Your task to perform on an android device: Open sound settings Image 0: 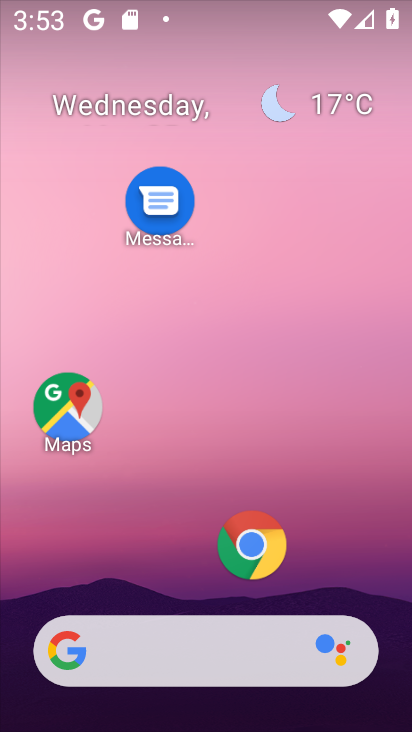
Step 0: drag from (334, 561) to (310, 53)
Your task to perform on an android device: Open sound settings Image 1: 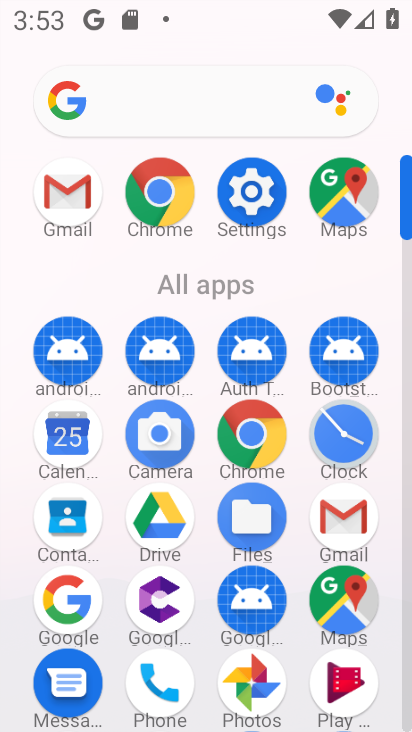
Step 1: click (255, 194)
Your task to perform on an android device: Open sound settings Image 2: 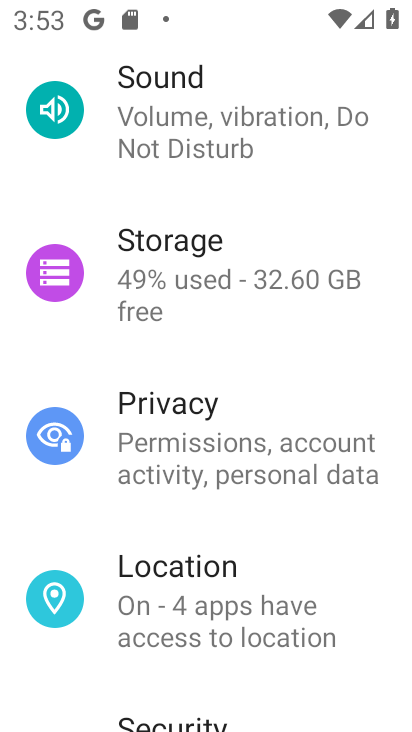
Step 2: click (178, 139)
Your task to perform on an android device: Open sound settings Image 3: 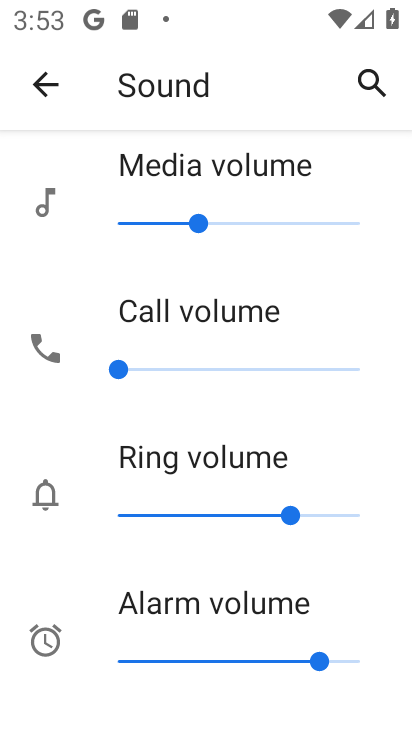
Step 3: task complete